Your task to perform on an android device: Clear all items from cart on newegg. Image 0: 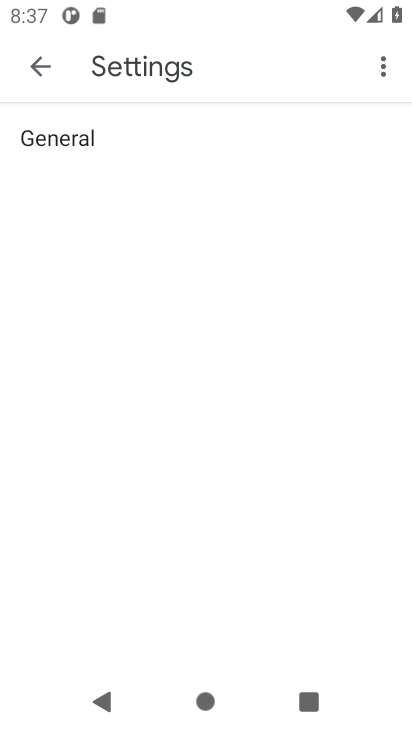
Step 0: press home button
Your task to perform on an android device: Clear all items from cart on newegg. Image 1: 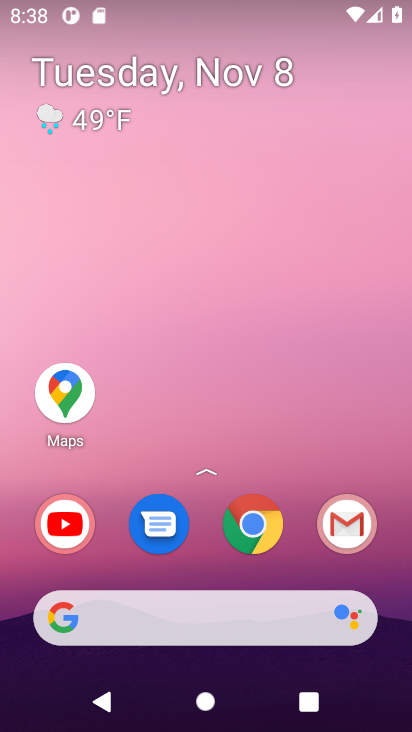
Step 1: click (259, 527)
Your task to perform on an android device: Clear all items from cart on newegg. Image 2: 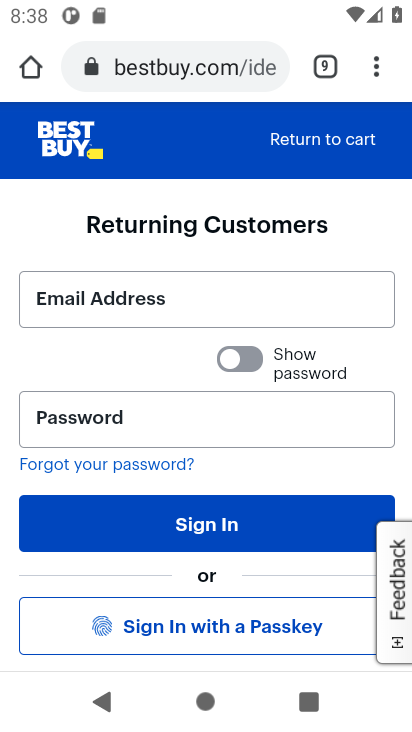
Step 2: click (151, 69)
Your task to perform on an android device: Clear all items from cart on newegg. Image 3: 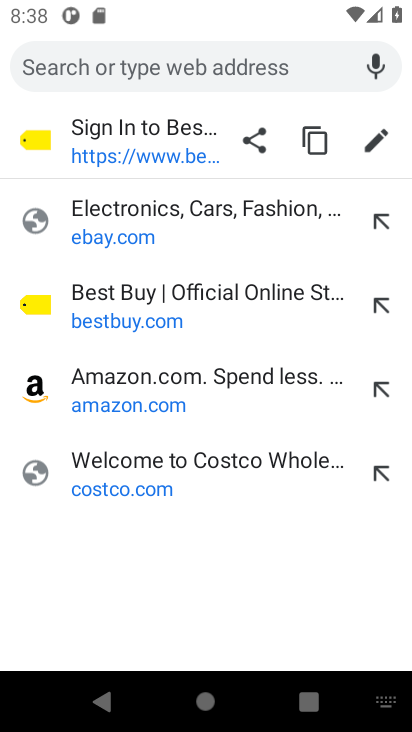
Step 3: type "newegg.com"
Your task to perform on an android device: Clear all items from cart on newegg. Image 4: 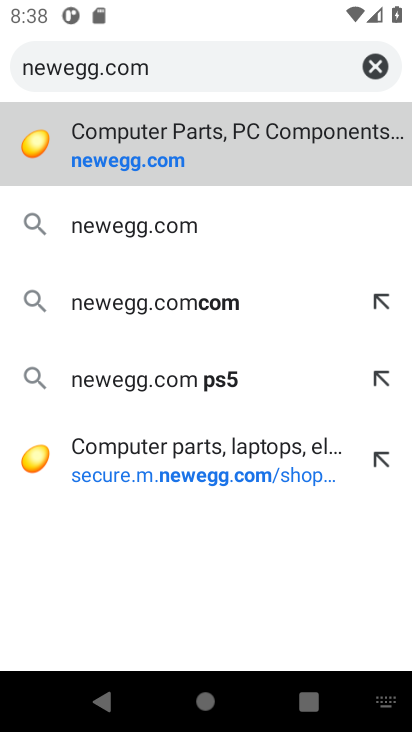
Step 4: click (103, 163)
Your task to perform on an android device: Clear all items from cart on newegg. Image 5: 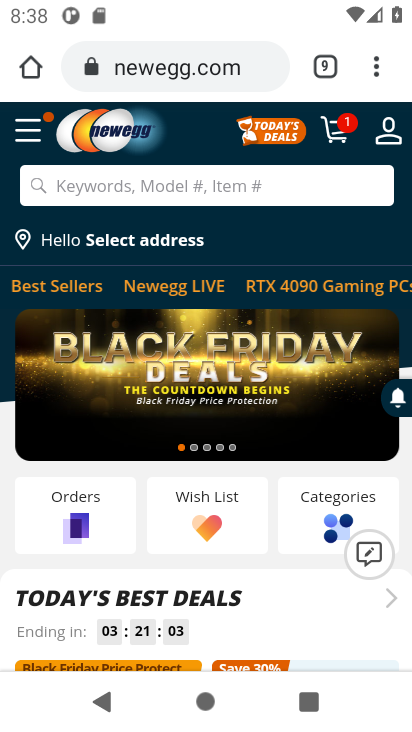
Step 5: click (334, 133)
Your task to perform on an android device: Clear all items from cart on newegg. Image 6: 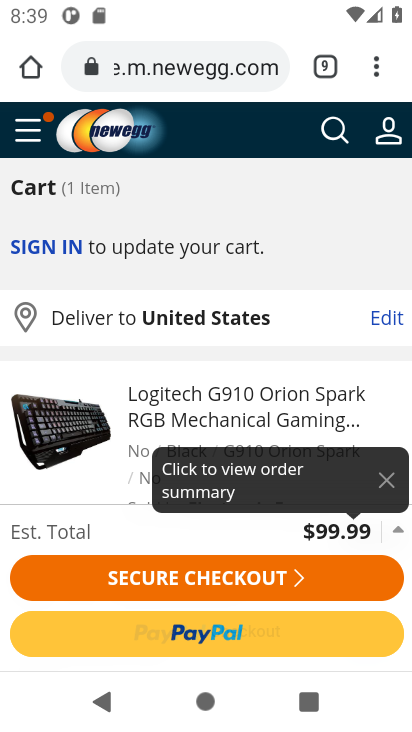
Step 6: drag from (192, 404) to (192, 226)
Your task to perform on an android device: Clear all items from cart on newegg. Image 7: 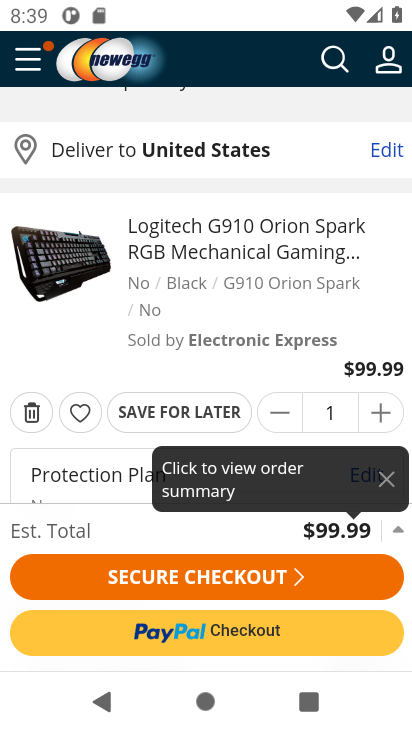
Step 7: click (31, 411)
Your task to perform on an android device: Clear all items from cart on newegg. Image 8: 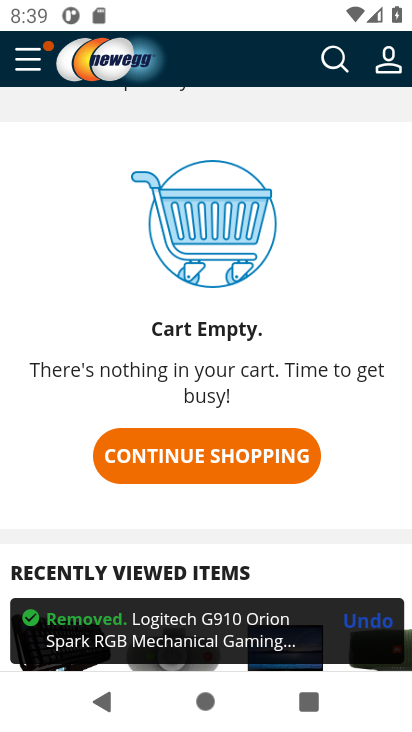
Step 8: task complete